Your task to perform on an android device: Go to Google Image 0: 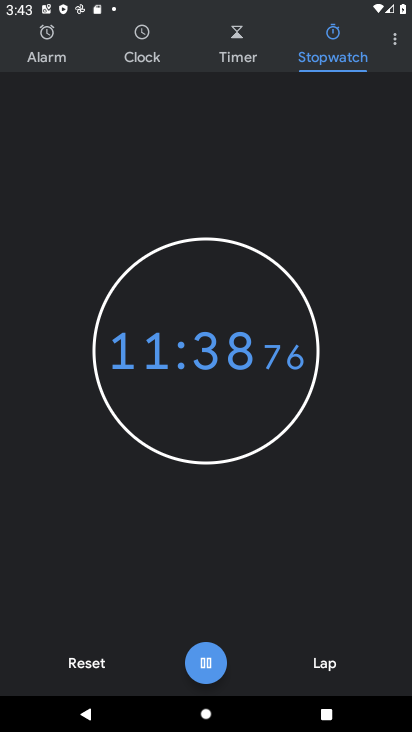
Step 0: press home button
Your task to perform on an android device: Go to Google Image 1: 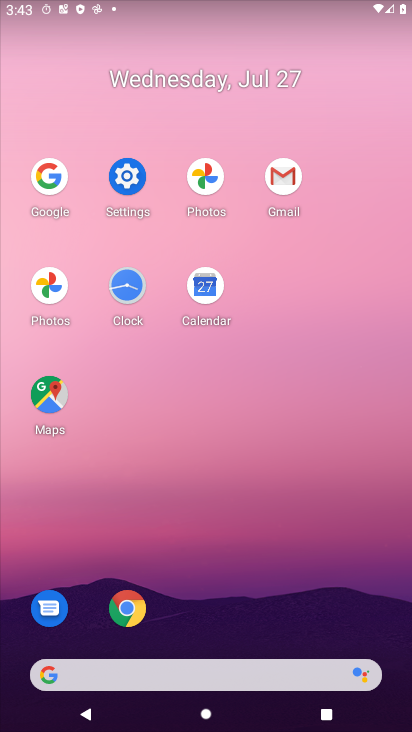
Step 1: click (40, 175)
Your task to perform on an android device: Go to Google Image 2: 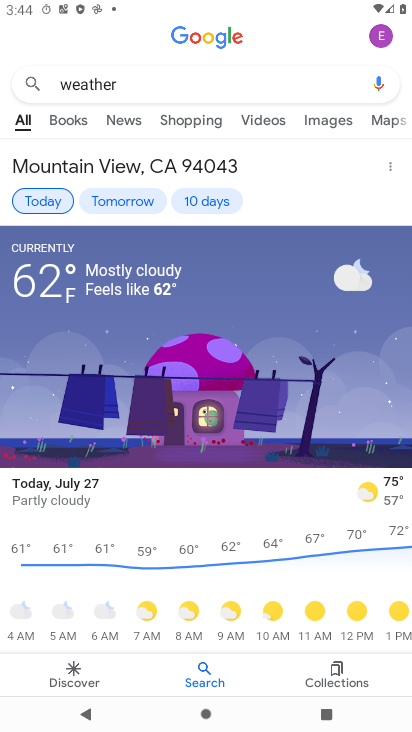
Step 2: task complete